Your task to perform on an android device: What is the recent news? Image 0: 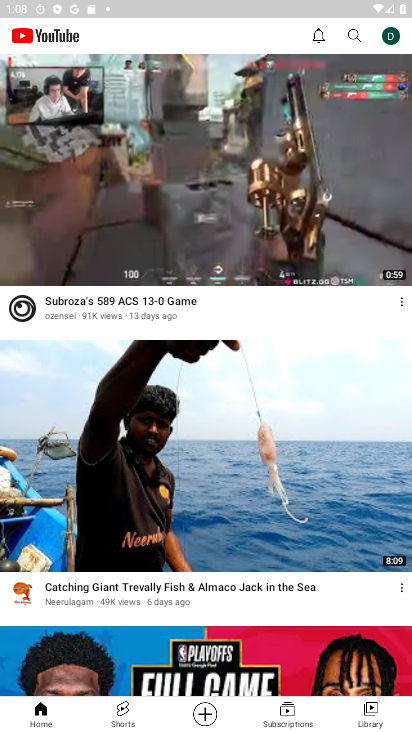
Step 0: press home button
Your task to perform on an android device: What is the recent news? Image 1: 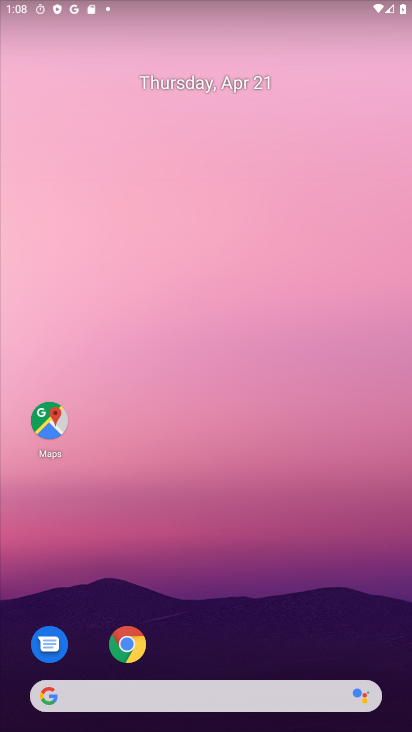
Step 1: click (141, 644)
Your task to perform on an android device: What is the recent news? Image 2: 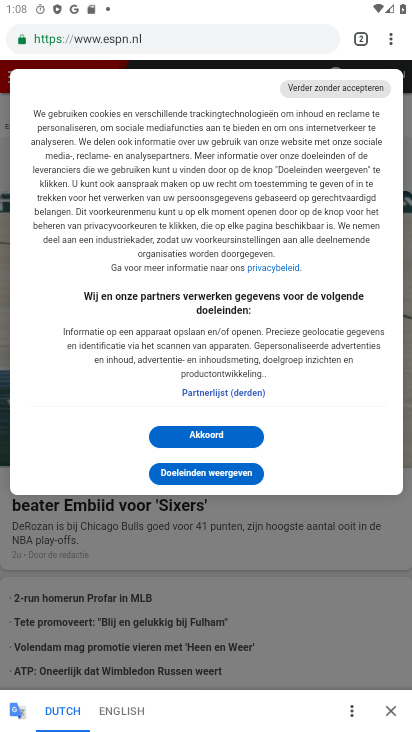
Step 2: click (187, 45)
Your task to perform on an android device: What is the recent news? Image 3: 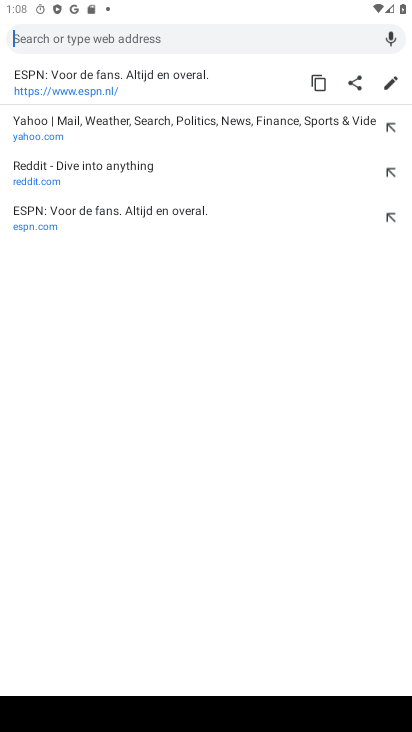
Step 3: type "recent news"
Your task to perform on an android device: What is the recent news? Image 4: 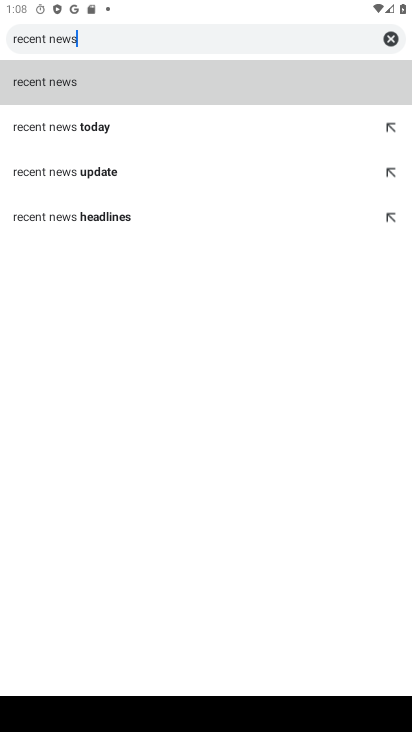
Step 4: click (112, 73)
Your task to perform on an android device: What is the recent news? Image 5: 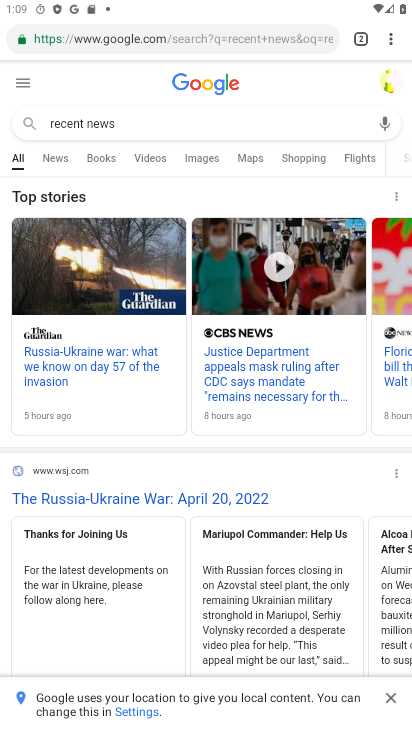
Step 5: task complete